Your task to perform on an android device: star an email in the gmail app Image 0: 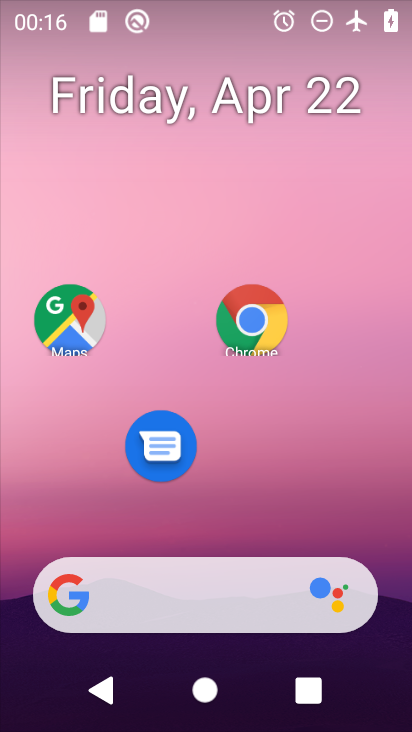
Step 0: drag from (208, 489) to (229, 10)
Your task to perform on an android device: star an email in the gmail app Image 1: 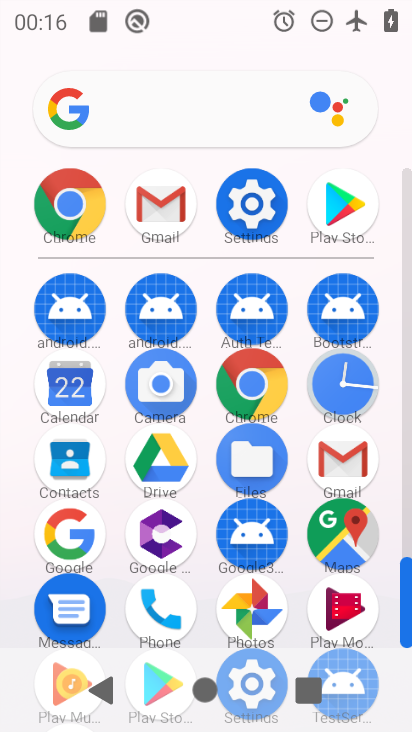
Step 1: click (346, 471)
Your task to perform on an android device: star an email in the gmail app Image 2: 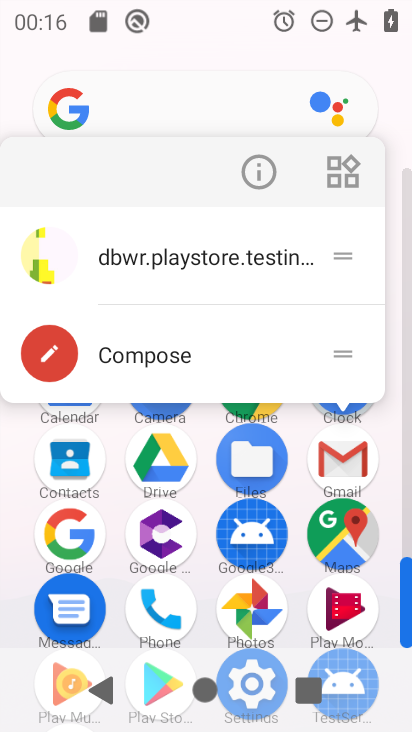
Step 2: click (248, 173)
Your task to perform on an android device: star an email in the gmail app Image 3: 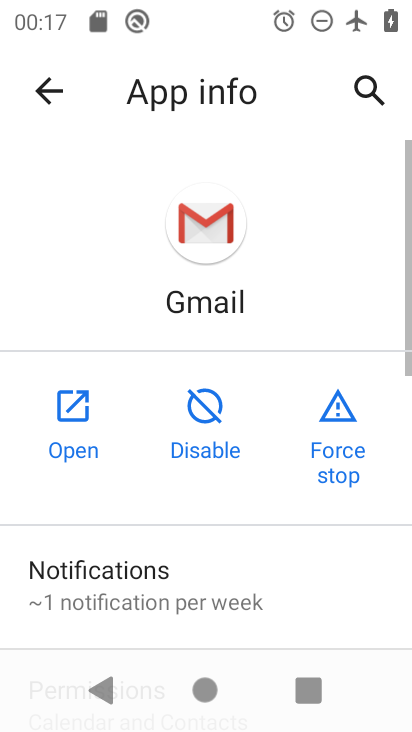
Step 3: click (60, 388)
Your task to perform on an android device: star an email in the gmail app Image 4: 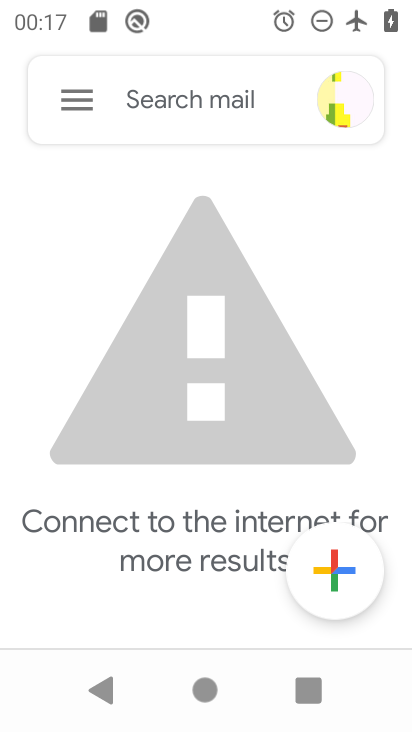
Step 4: click (48, 76)
Your task to perform on an android device: star an email in the gmail app Image 5: 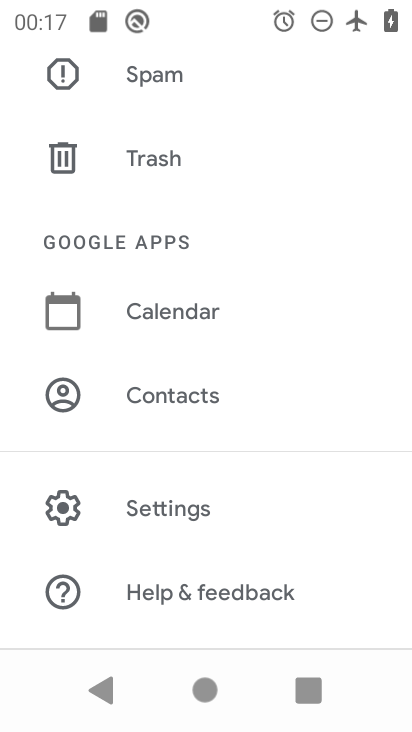
Step 5: task complete